Your task to perform on an android device: empty trash in the gmail app Image 0: 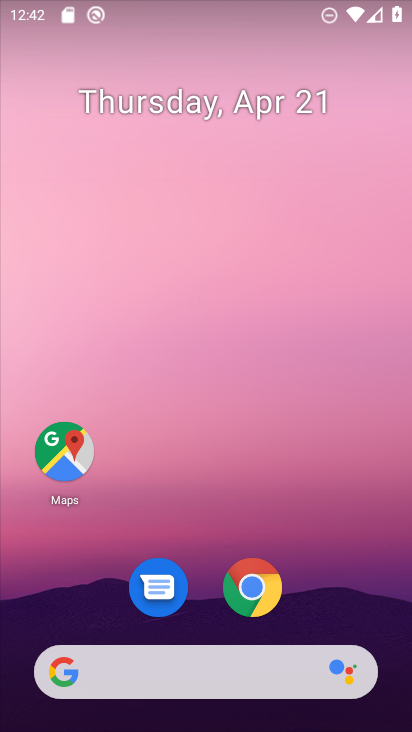
Step 0: click (245, 166)
Your task to perform on an android device: empty trash in the gmail app Image 1: 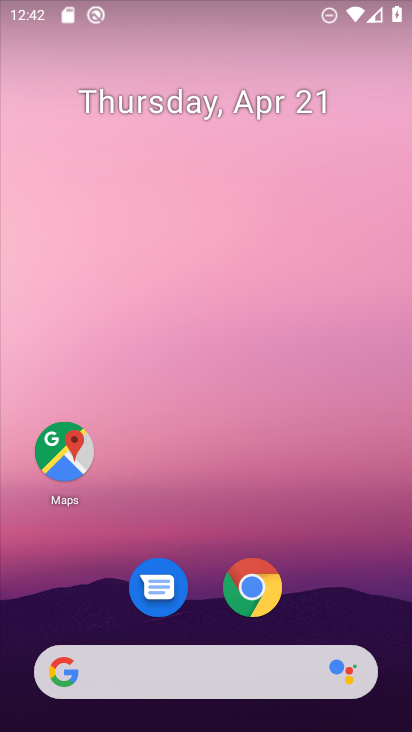
Step 1: drag from (196, 493) to (134, 30)
Your task to perform on an android device: empty trash in the gmail app Image 2: 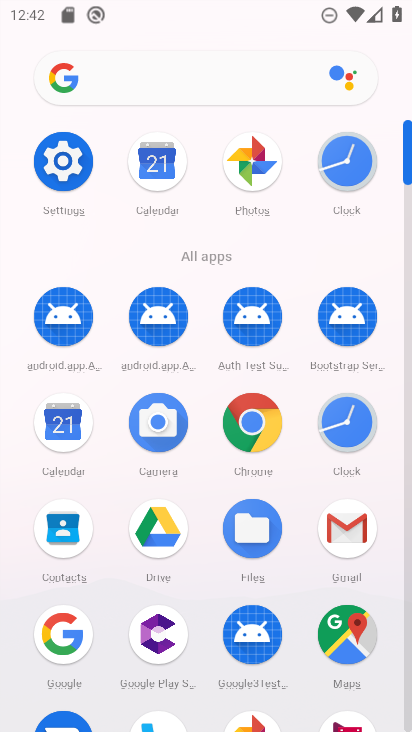
Step 2: click (346, 532)
Your task to perform on an android device: empty trash in the gmail app Image 3: 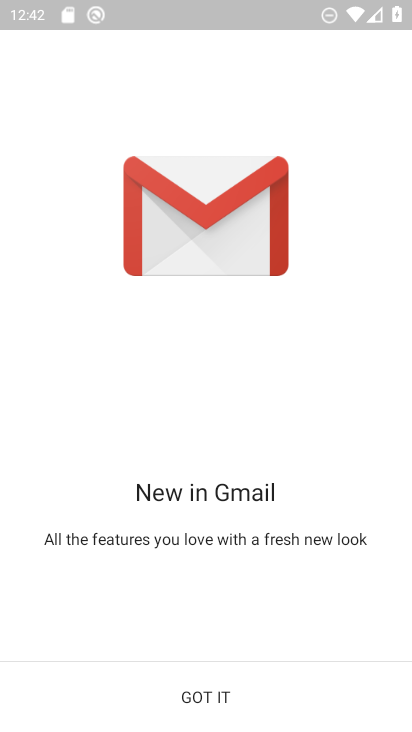
Step 3: click (208, 689)
Your task to perform on an android device: empty trash in the gmail app Image 4: 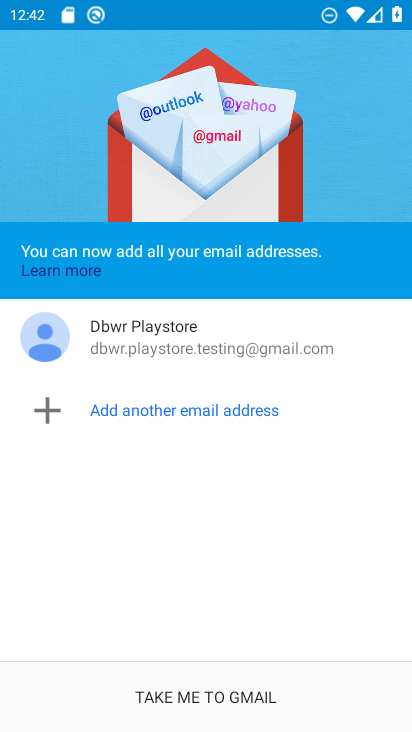
Step 4: click (232, 696)
Your task to perform on an android device: empty trash in the gmail app Image 5: 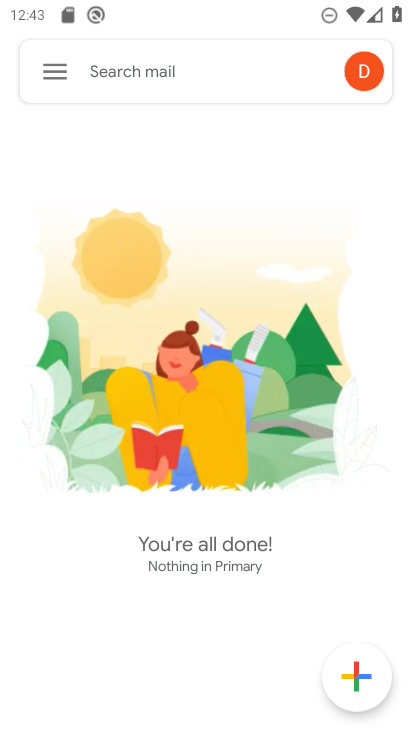
Step 5: click (51, 76)
Your task to perform on an android device: empty trash in the gmail app Image 6: 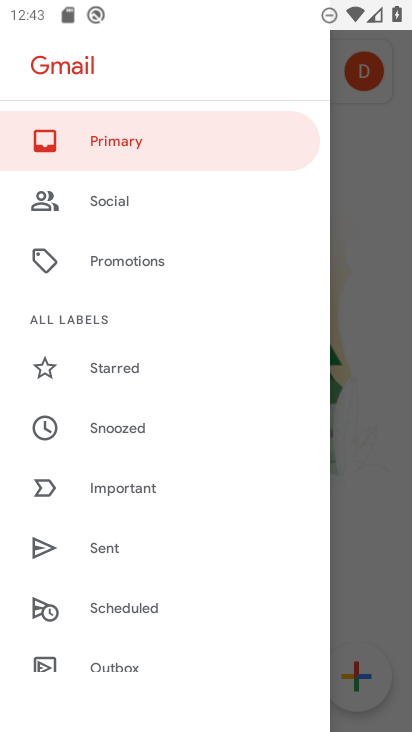
Step 6: drag from (154, 569) to (115, 241)
Your task to perform on an android device: empty trash in the gmail app Image 7: 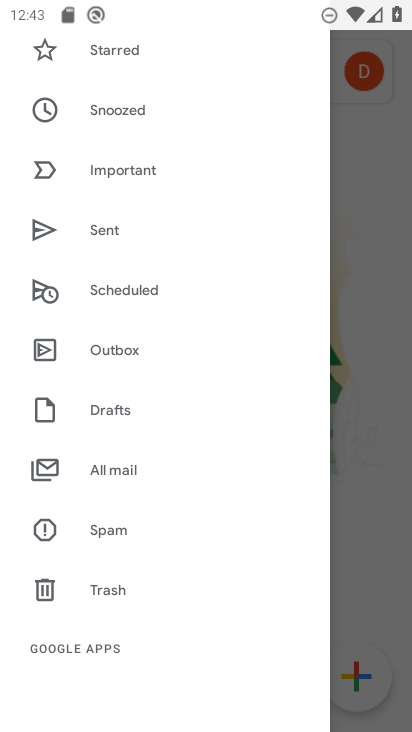
Step 7: click (98, 583)
Your task to perform on an android device: empty trash in the gmail app Image 8: 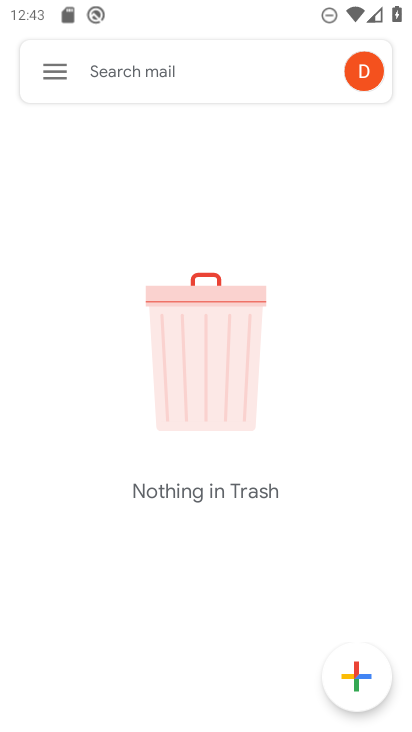
Step 8: task complete